Your task to perform on an android device: turn off location Image 0: 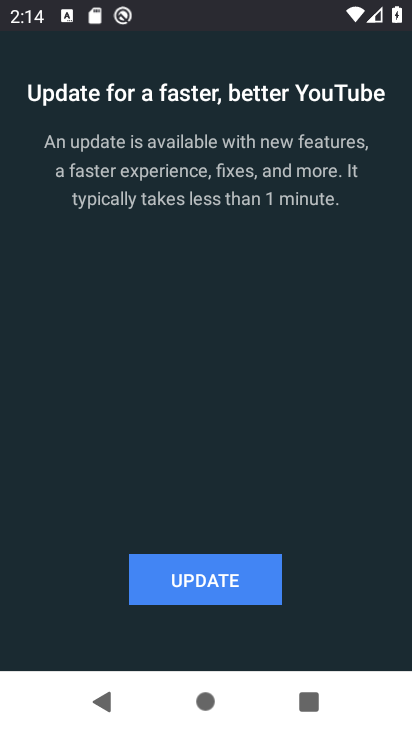
Step 0: press home button
Your task to perform on an android device: turn off location Image 1: 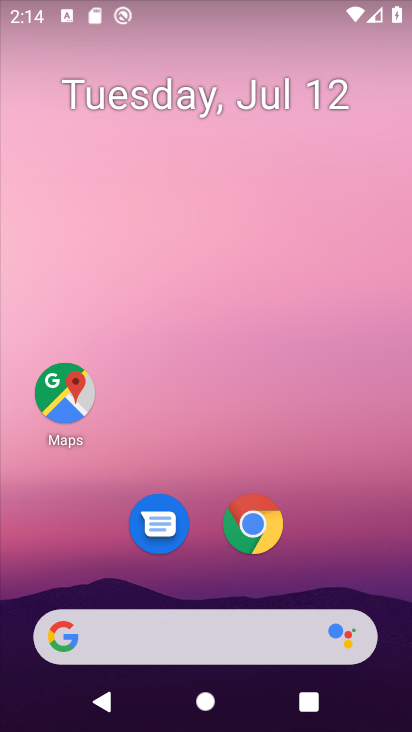
Step 1: drag from (340, 517) to (315, 50)
Your task to perform on an android device: turn off location Image 2: 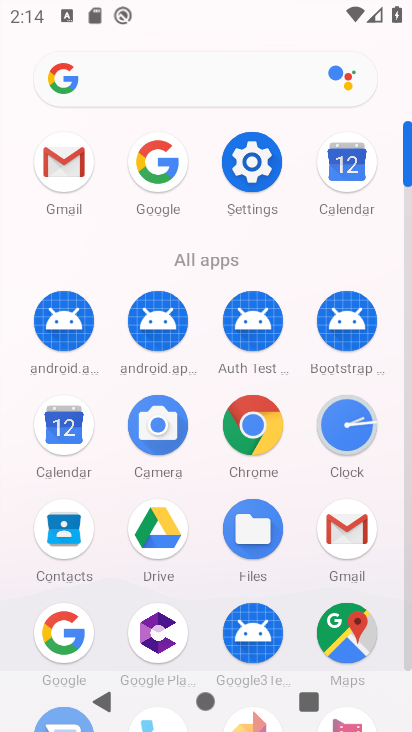
Step 2: click (237, 154)
Your task to perform on an android device: turn off location Image 3: 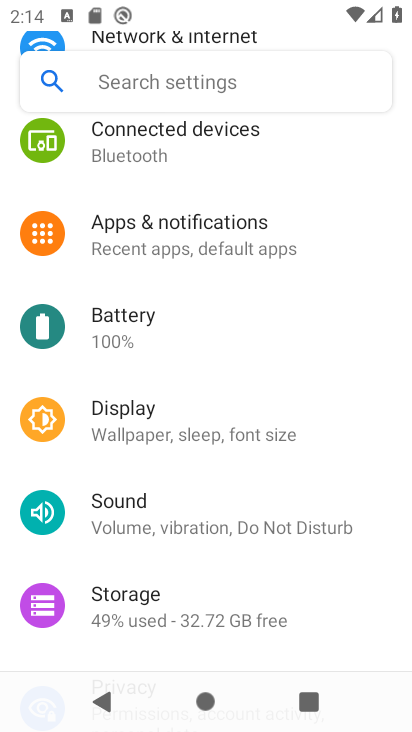
Step 3: drag from (235, 474) to (234, 173)
Your task to perform on an android device: turn off location Image 4: 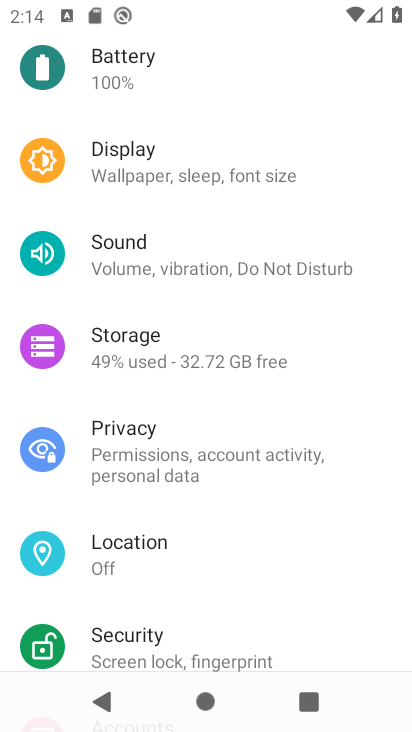
Step 4: click (186, 555)
Your task to perform on an android device: turn off location Image 5: 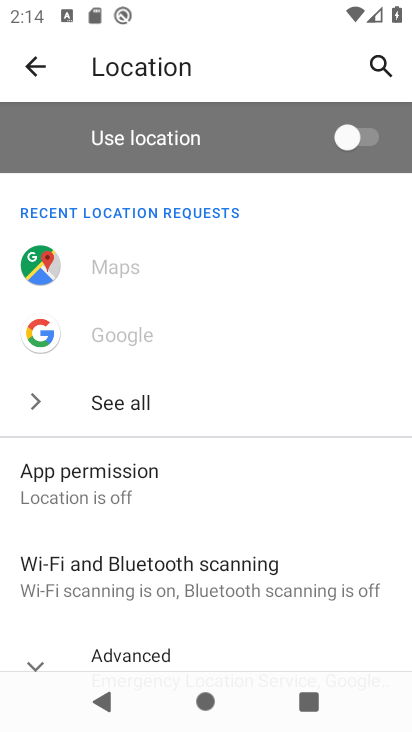
Step 5: task complete